Your task to perform on an android device: Open battery settings Image 0: 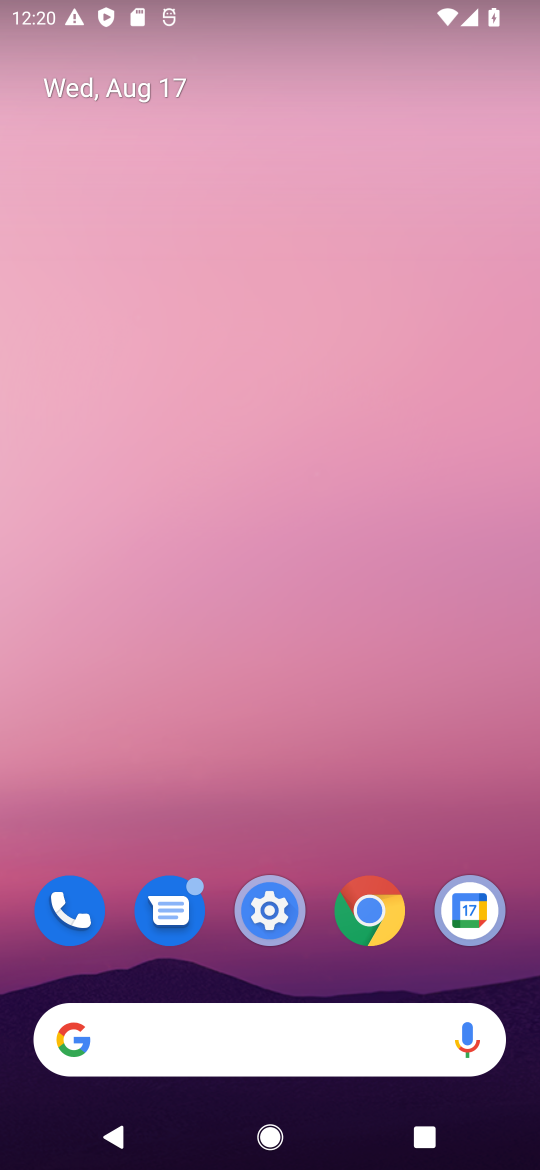
Step 0: click (268, 919)
Your task to perform on an android device: Open battery settings Image 1: 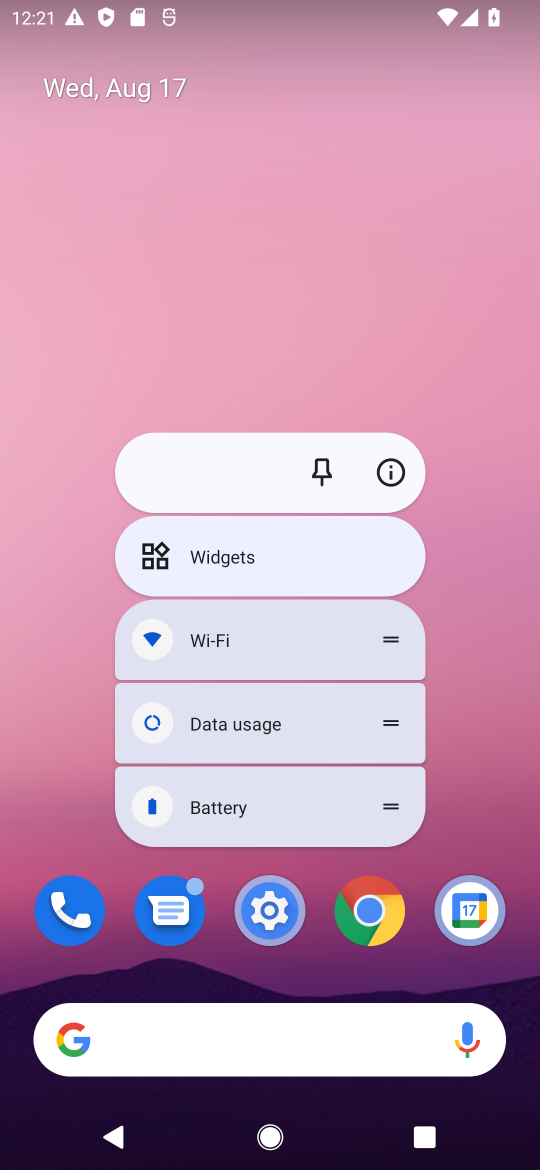
Step 1: click (272, 919)
Your task to perform on an android device: Open battery settings Image 2: 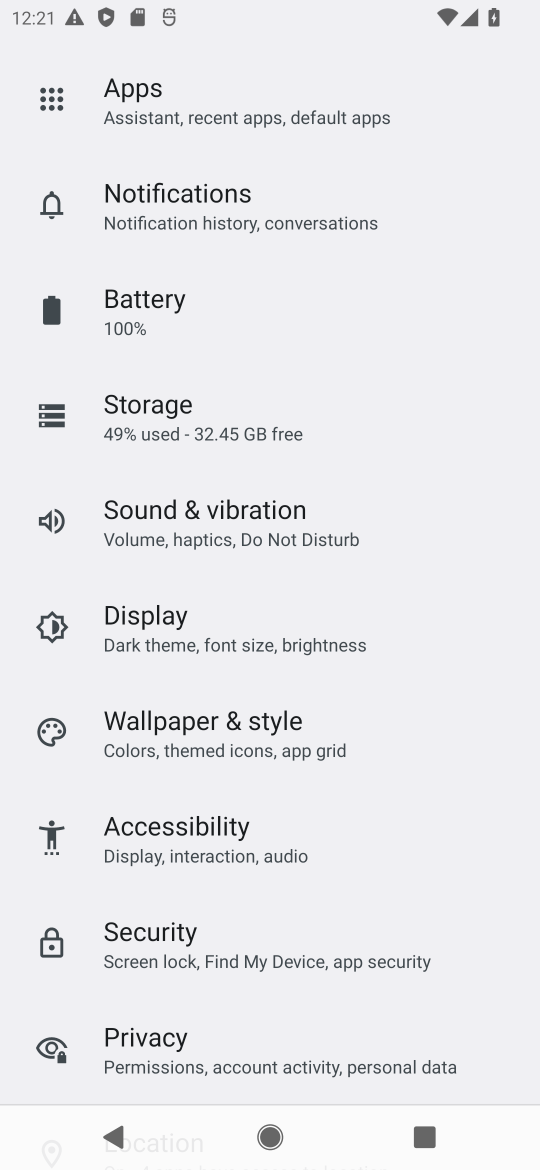
Step 2: click (143, 311)
Your task to perform on an android device: Open battery settings Image 3: 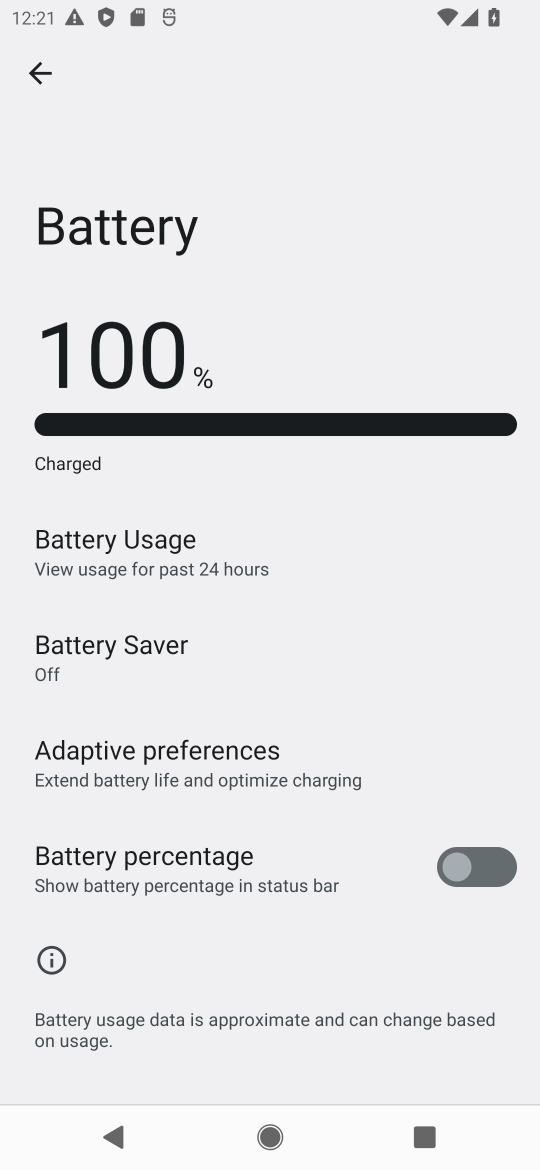
Step 3: task complete